Your task to perform on an android device: change the clock display to analog Image 0: 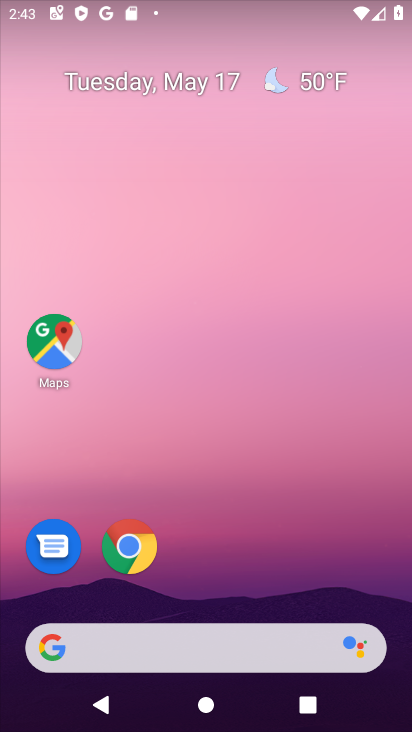
Step 0: drag from (190, 583) to (257, 37)
Your task to perform on an android device: change the clock display to analog Image 1: 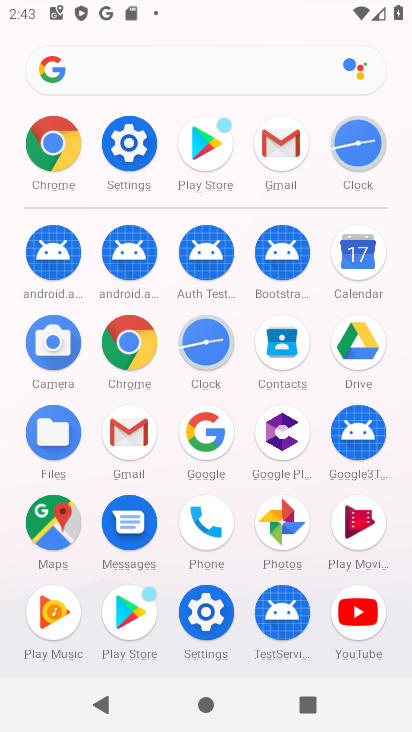
Step 1: click (217, 344)
Your task to perform on an android device: change the clock display to analog Image 2: 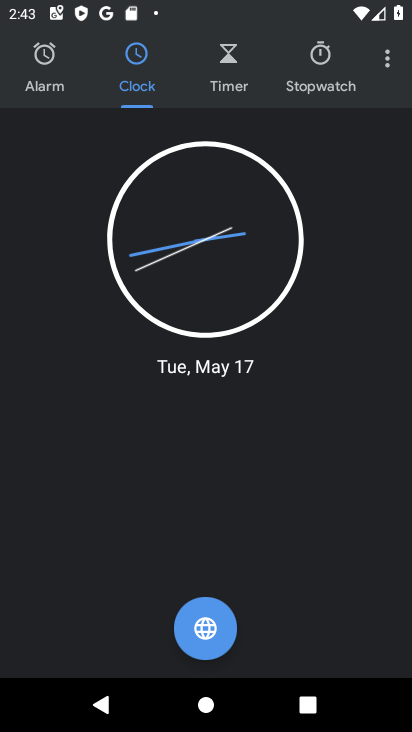
Step 2: click (386, 62)
Your task to perform on an android device: change the clock display to analog Image 3: 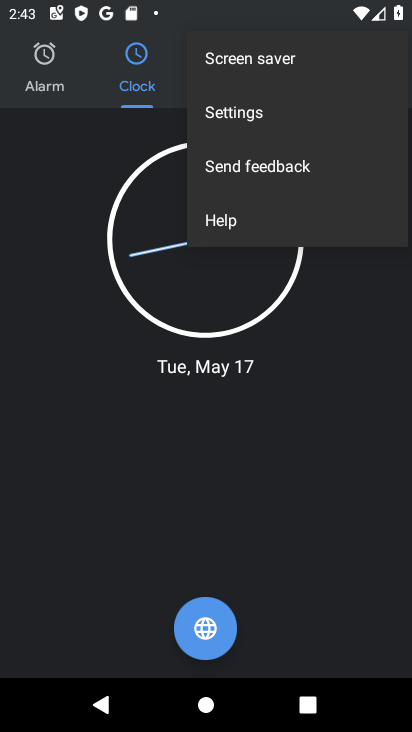
Step 3: click (250, 113)
Your task to perform on an android device: change the clock display to analog Image 4: 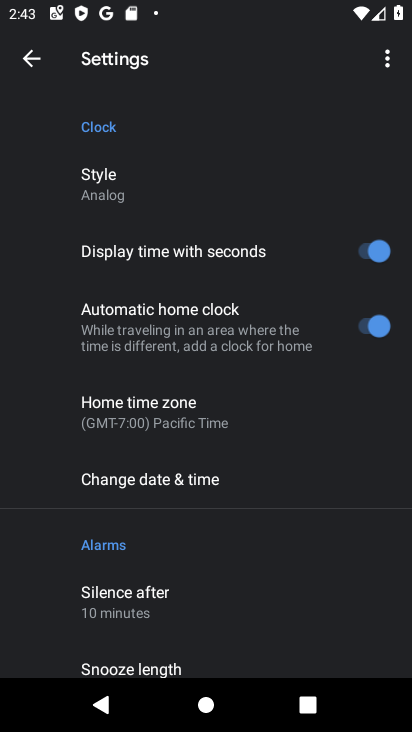
Step 4: task complete